Your task to perform on an android device: What's the weather going to be tomorrow? Image 0: 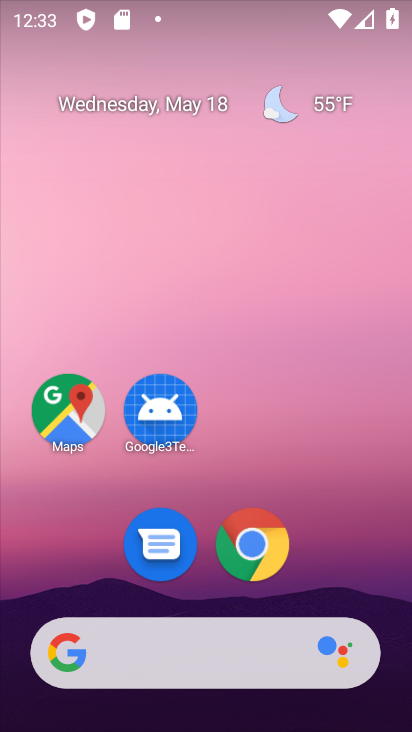
Step 0: click (336, 100)
Your task to perform on an android device: What's the weather going to be tomorrow? Image 1: 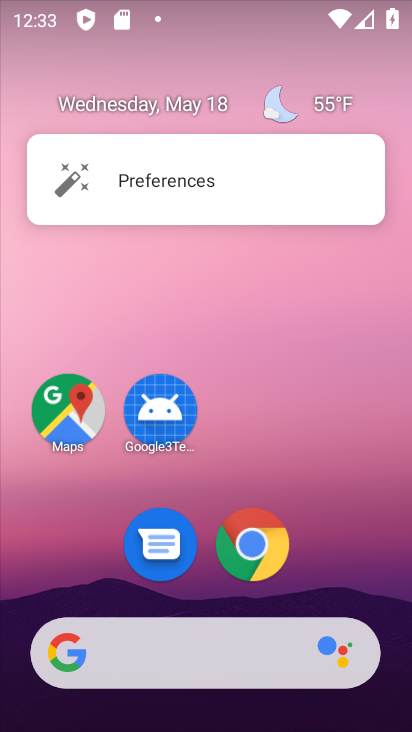
Step 1: click (305, 99)
Your task to perform on an android device: What's the weather going to be tomorrow? Image 2: 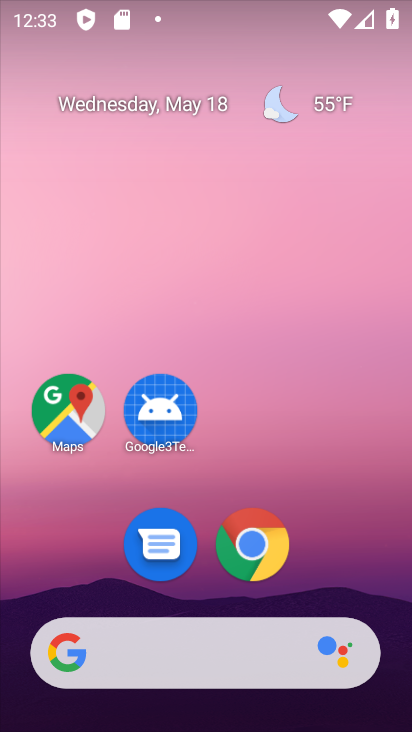
Step 2: click (332, 106)
Your task to perform on an android device: What's the weather going to be tomorrow? Image 3: 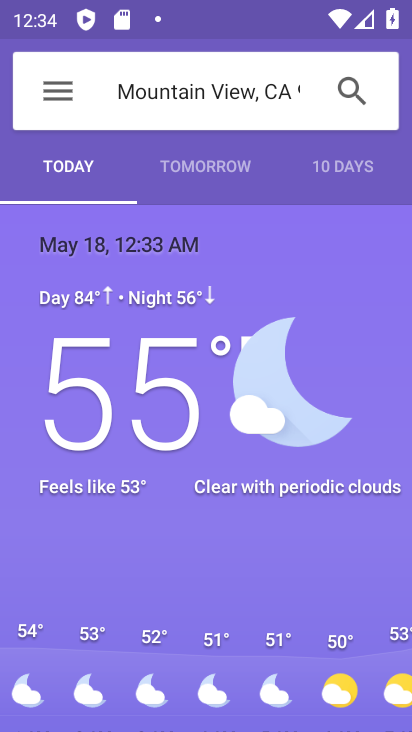
Step 3: click (124, 172)
Your task to perform on an android device: What's the weather going to be tomorrow? Image 4: 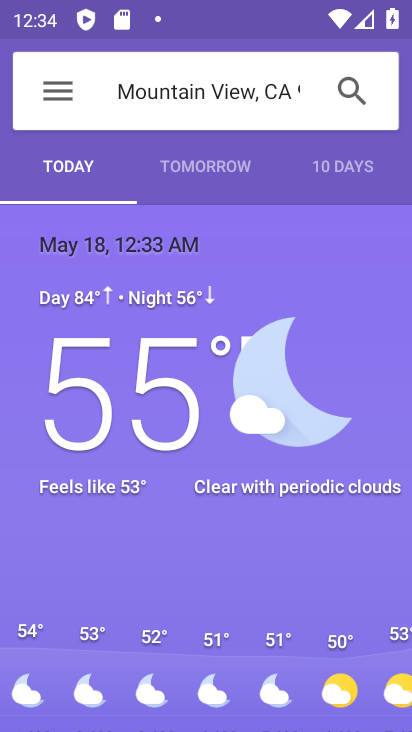
Step 4: click (195, 170)
Your task to perform on an android device: What's the weather going to be tomorrow? Image 5: 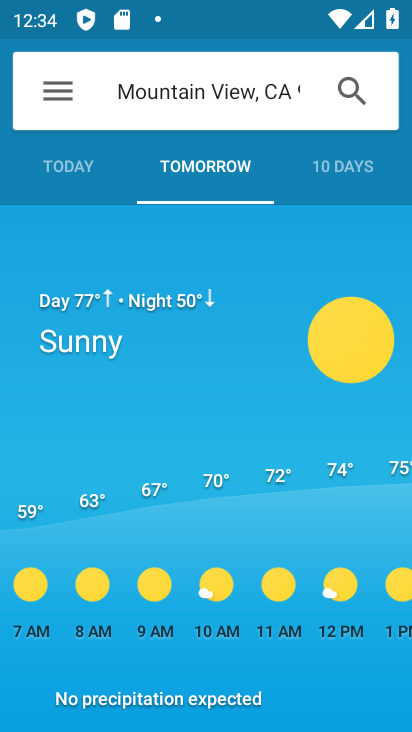
Step 5: task complete